Your task to perform on an android device: turn off airplane mode Image 0: 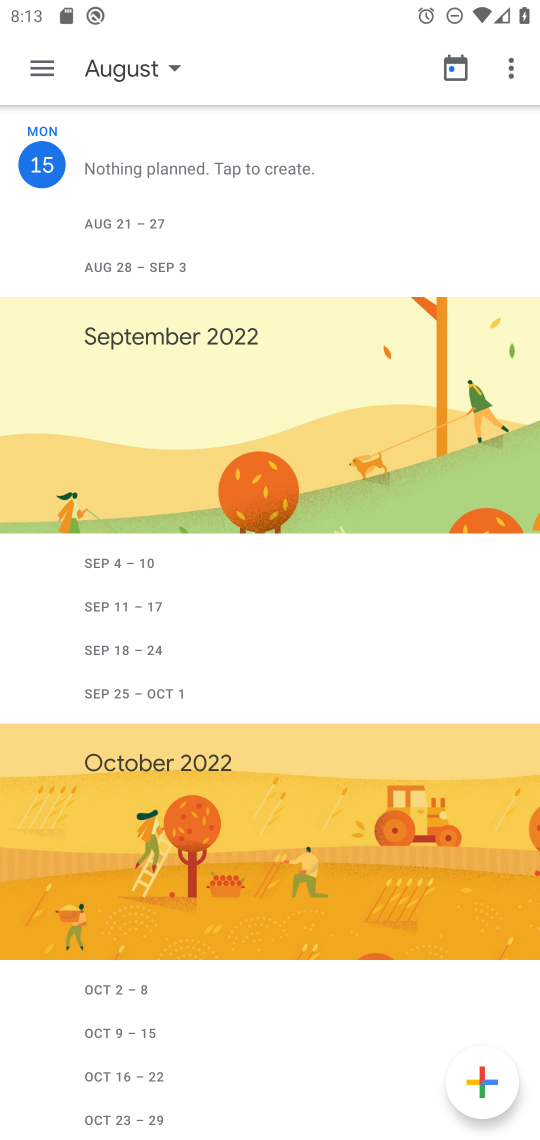
Step 0: drag from (169, 13) to (185, 943)
Your task to perform on an android device: turn off airplane mode Image 1: 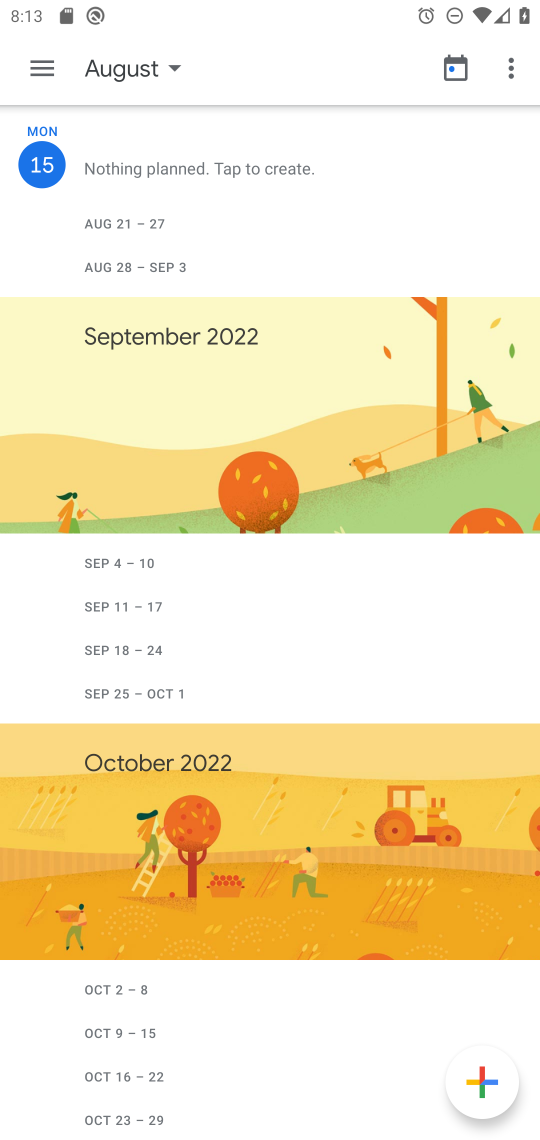
Step 1: task complete